Your task to perform on an android device: change the clock display to analog Image 0: 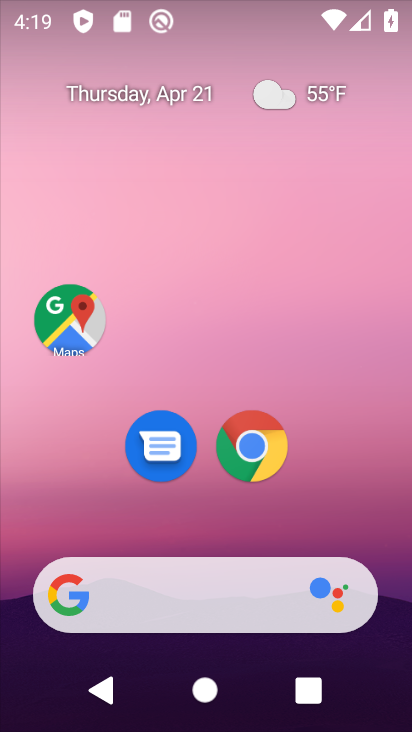
Step 0: drag from (219, 522) to (220, 78)
Your task to perform on an android device: change the clock display to analog Image 1: 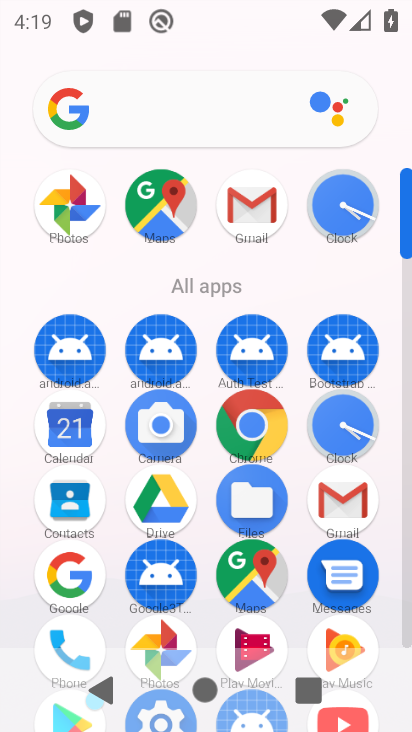
Step 1: click (336, 434)
Your task to perform on an android device: change the clock display to analog Image 2: 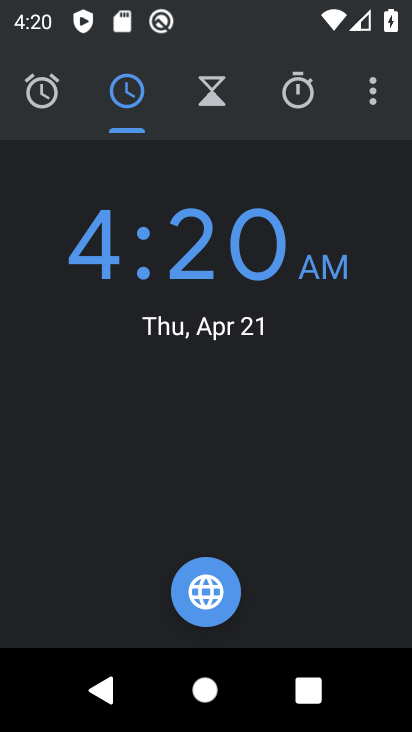
Step 2: click (389, 113)
Your task to perform on an android device: change the clock display to analog Image 3: 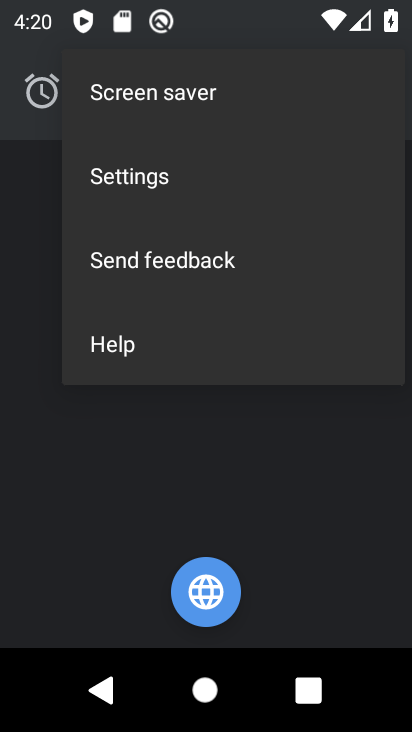
Step 3: click (122, 190)
Your task to perform on an android device: change the clock display to analog Image 4: 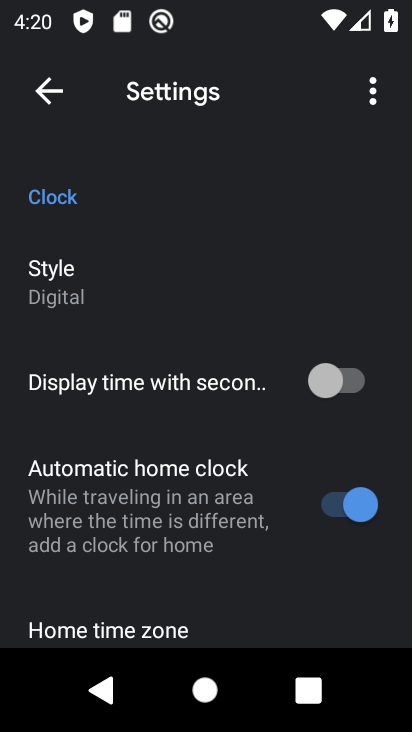
Step 4: click (87, 311)
Your task to perform on an android device: change the clock display to analog Image 5: 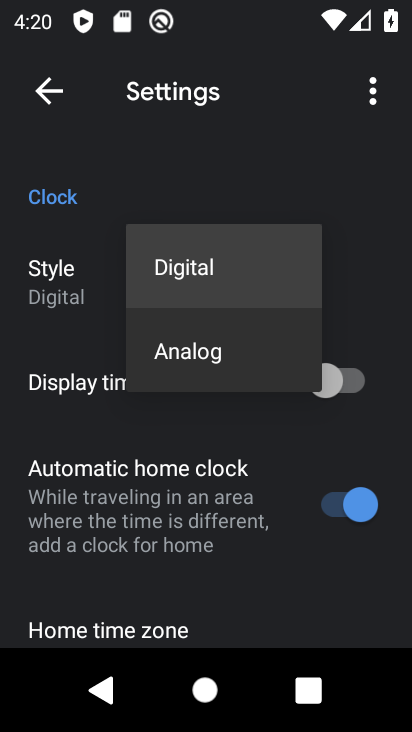
Step 5: click (168, 341)
Your task to perform on an android device: change the clock display to analog Image 6: 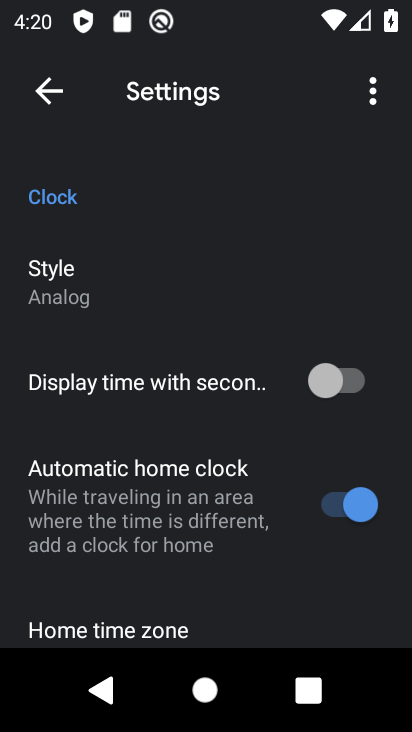
Step 6: task complete